Your task to perform on an android device: refresh tabs in the chrome app Image 0: 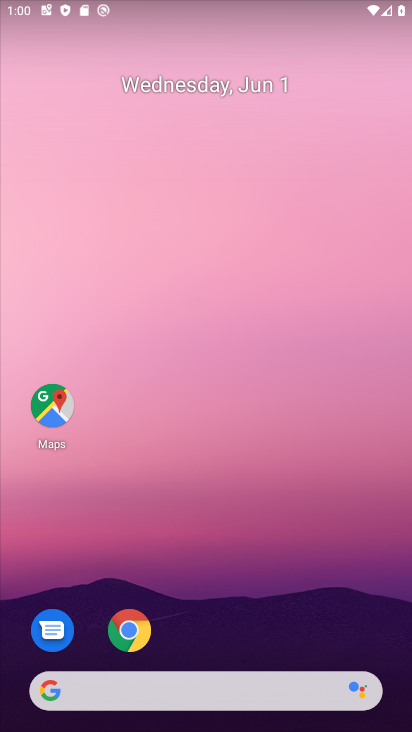
Step 0: press home button
Your task to perform on an android device: refresh tabs in the chrome app Image 1: 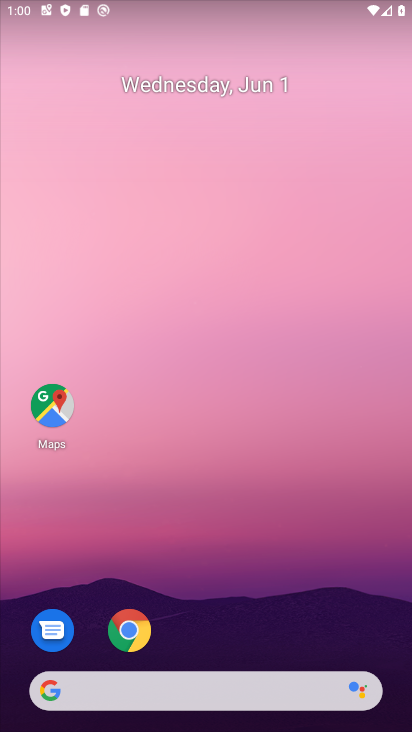
Step 1: click (134, 622)
Your task to perform on an android device: refresh tabs in the chrome app Image 2: 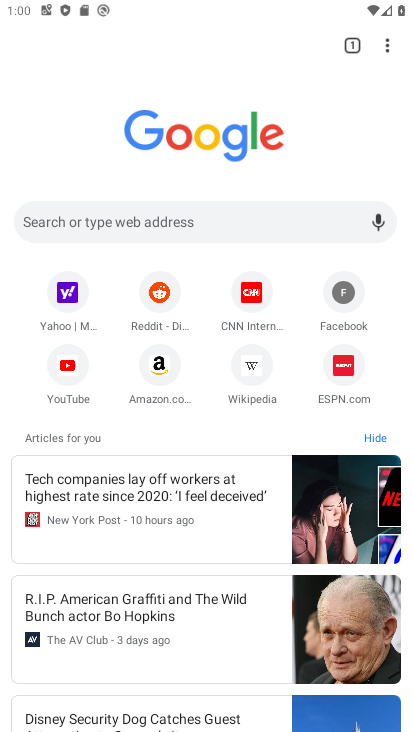
Step 2: click (390, 45)
Your task to perform on an android device: refresh tabs in the chrome app Image 3: 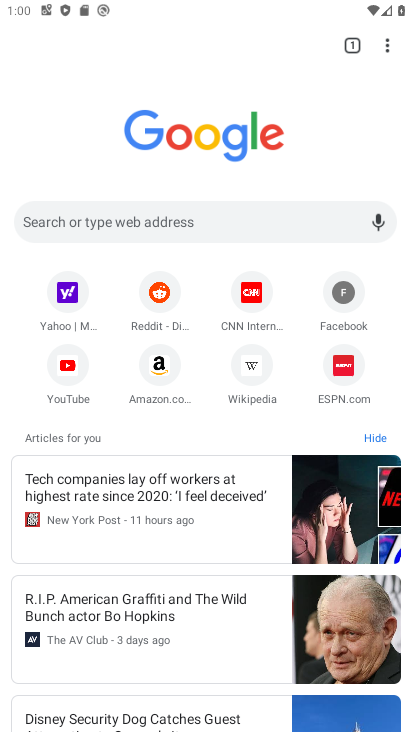
Step 3: task complete